Your task to perform on an android device: change timer sound Image 0: 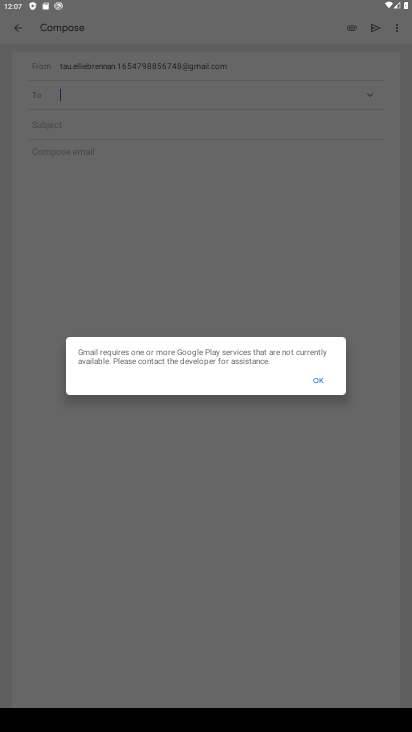
Step 0: press home button
Your task to perform on an android device: change timer sound Image 1: 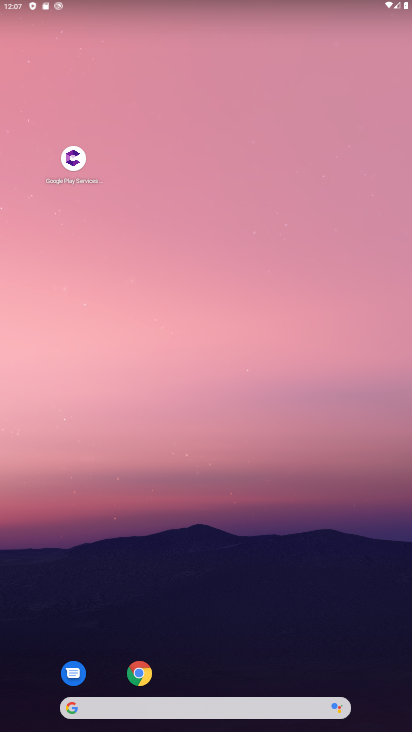
Step 1: drag from (283, 647) to (189, 136)
Your task to perform on an android device: change timer sound Image 2: 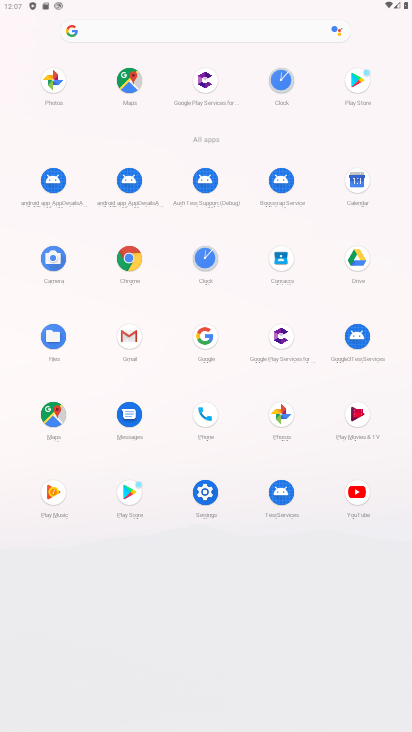
Step 2: click (212, 253)
Your task to perform on an android device: change timer sound Image 3: 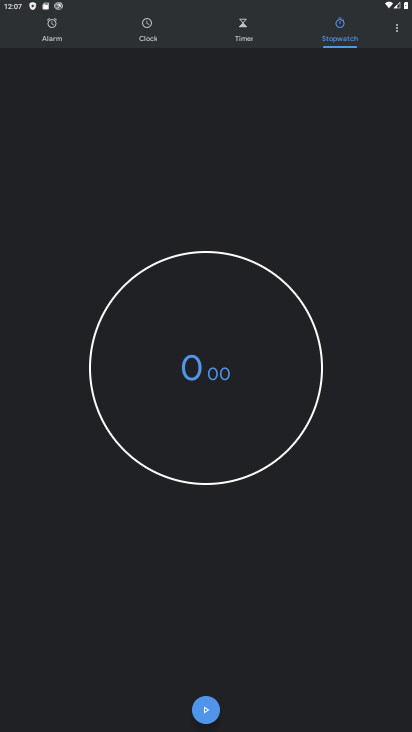
Step 3: click (231, 33)
Your task to perform on an android device: change timer sound Image 4: 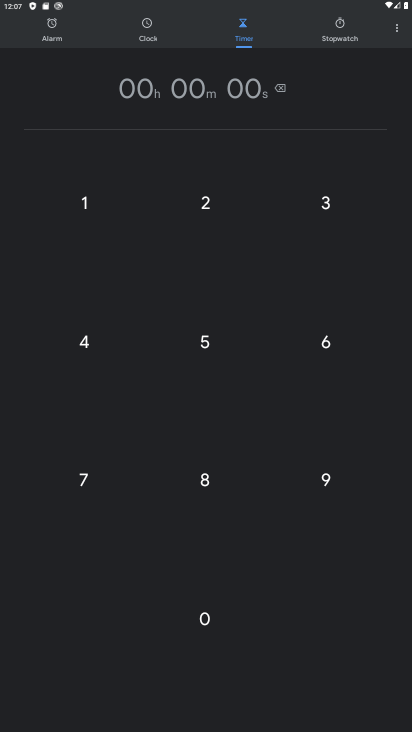
Step 4: task complete